Your task to perform on an android device: Clear all items from cart on bestbuy.com. Add "usb-c to usb-b" to the cart on bestbuy.com, then select checkout. Image 0: 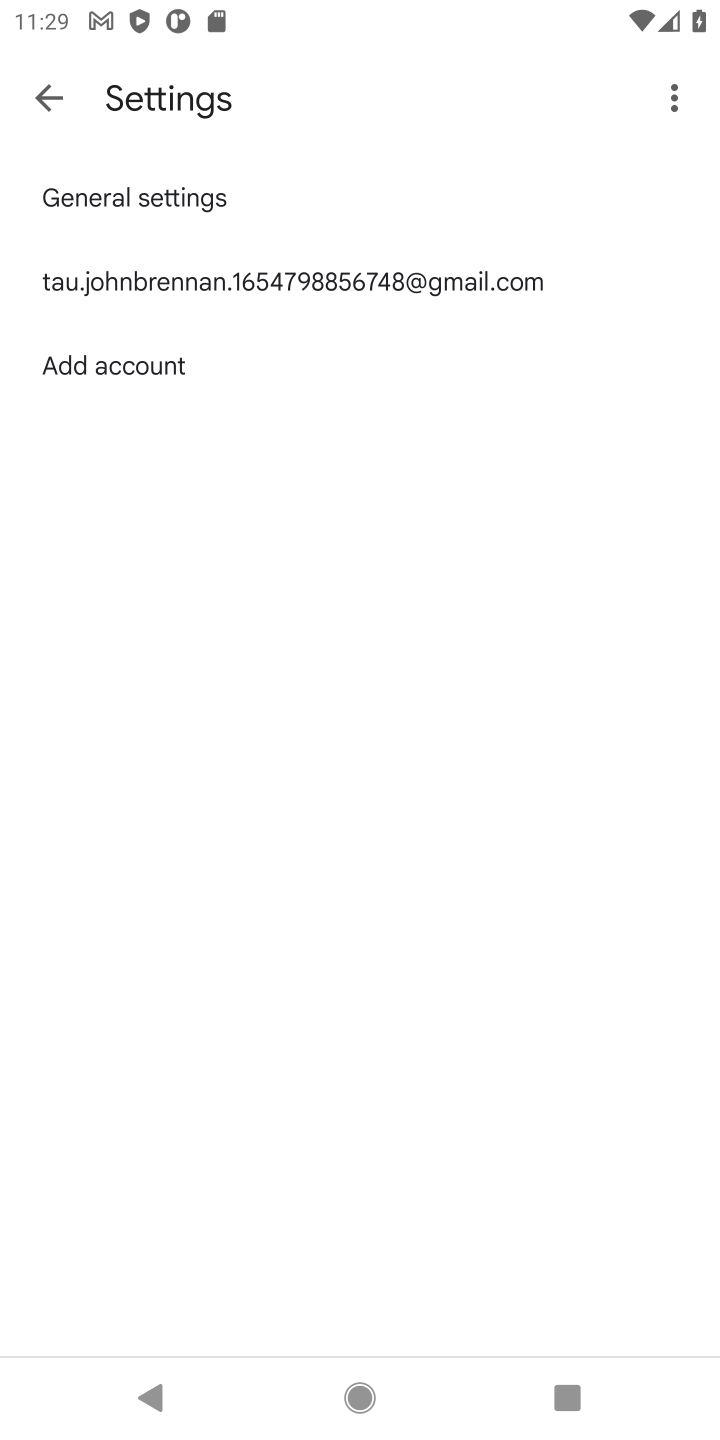
Step 0: press home button
Your task to perform on an android device: Clear all items from cart on bestbuy.com. Add "usb-c to usb-b" to the cart on bestbuy.com, then select checkout. Image 1: 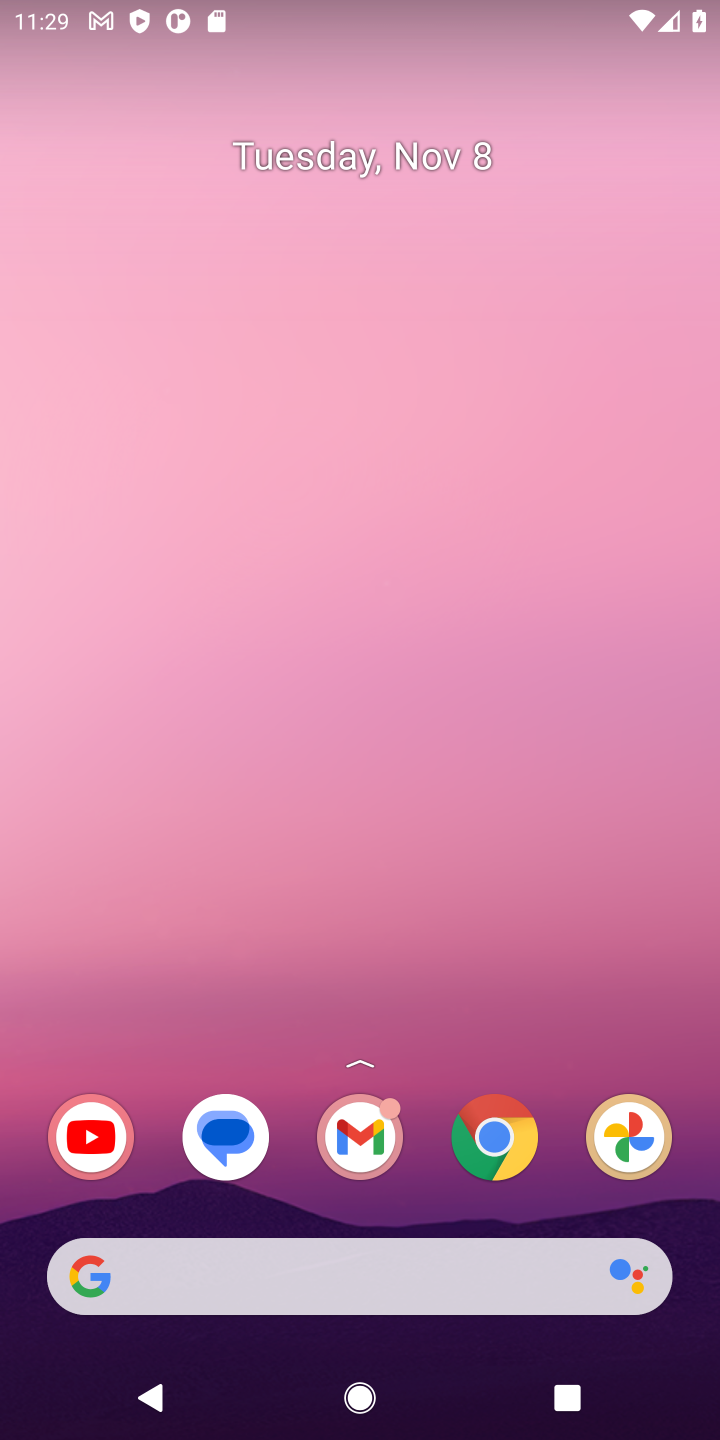
Step 1: click (498, 1140)
Your task to perform on an android device: Clear all items from cart on bestbuy.com. Add "usb-c to usb-b" to the cart on bestbuy.com, then select checkout. Image 2: 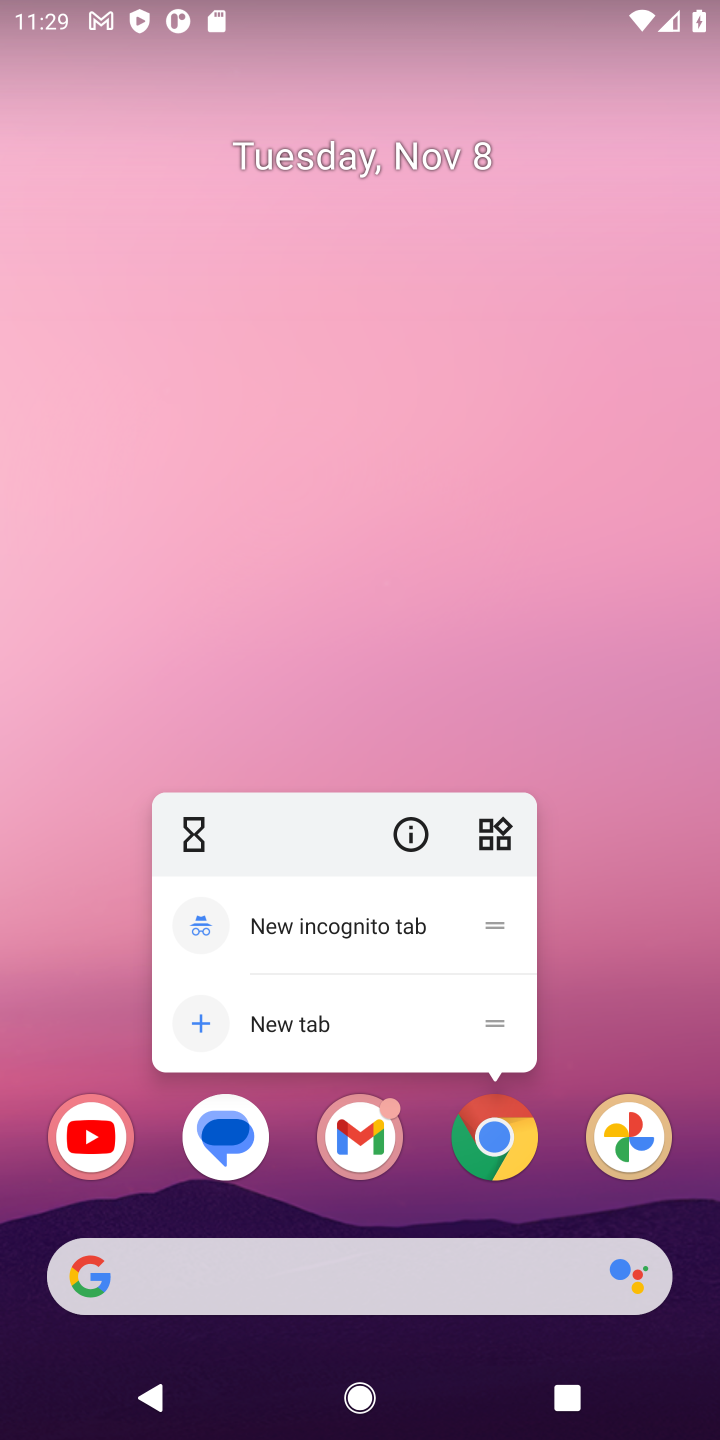
Step 2: click (498, 1140)
Your task to perform on an android device: Clear all items from cart on bestbuy.com. Add "usb-c to usb-b" to the cart on bestbuy.com, then select checkout. Image 3: 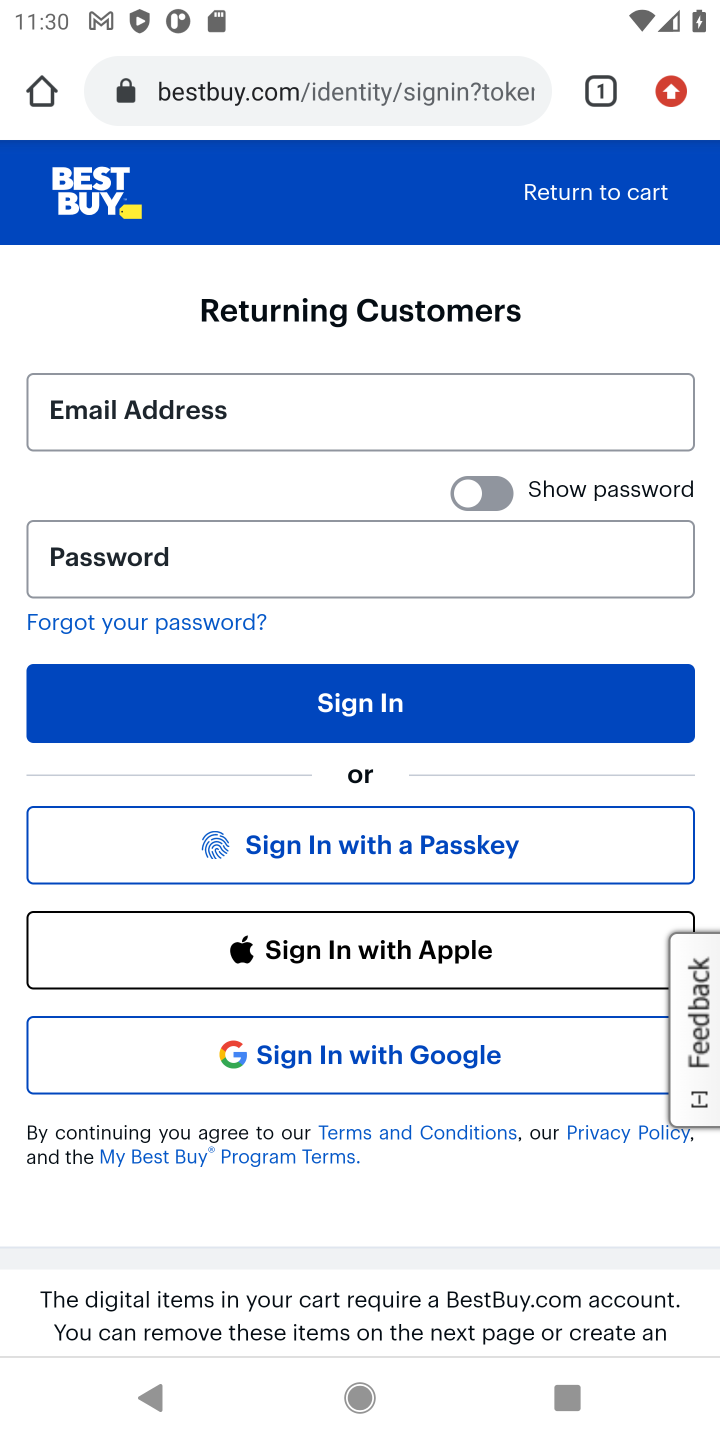
Step 3: click (446, 80)
Your task to perform on an android device: Clear all items from cart on bestbuy.com. Add "usb-c to usb-b" to the cart on bestbuy.com, then select checkout. Image 4: 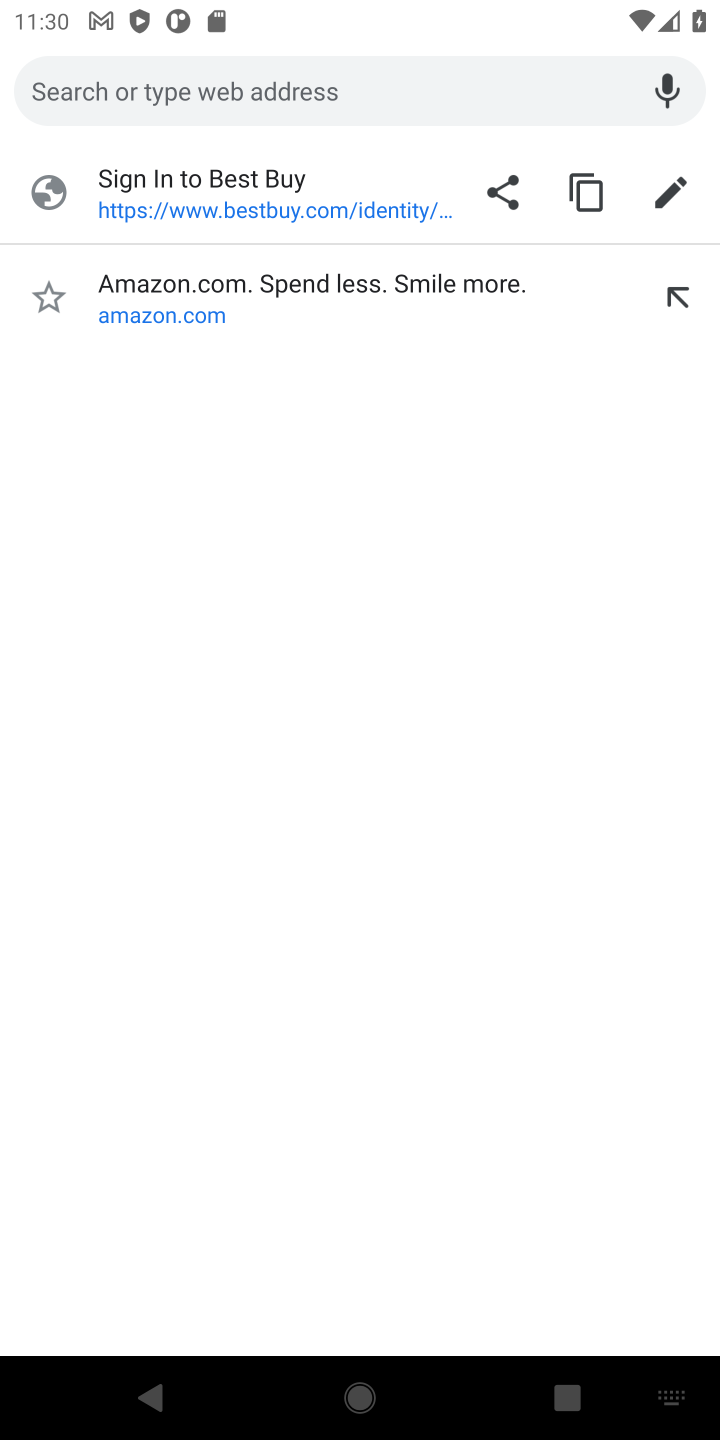
Step 4: type "bestbuy.com"
Your task to perform on an android device: Clear all items from cart on bestbuy.com. Add "usb-c to usb-b" to the cart on bestbuy.com, then select checkout. Image 5: 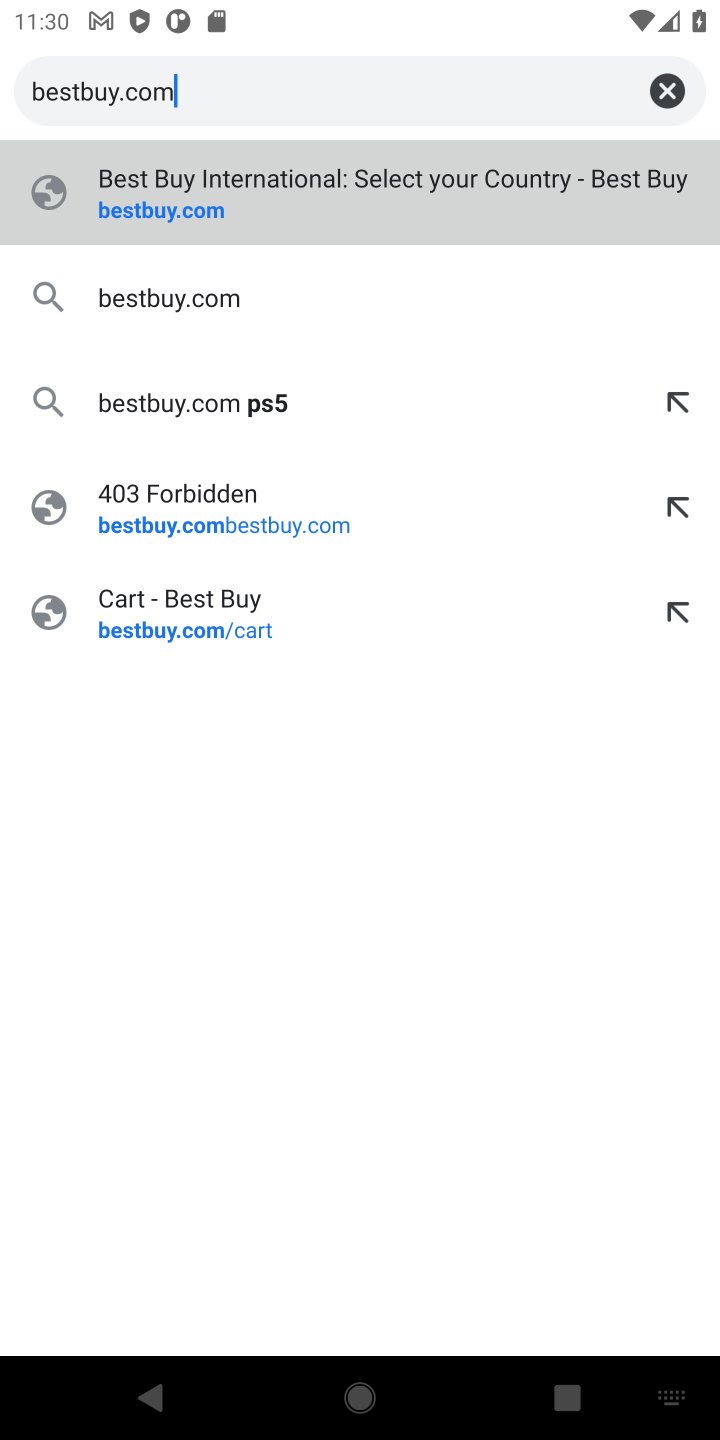
Step 5: click (213, 299)
Your task to perform on an android device: Clear all items from cart on bestbuy.com. Add "usb-c to usb-b" to the cart on bestbuy.com, then select checkout. Image 6: 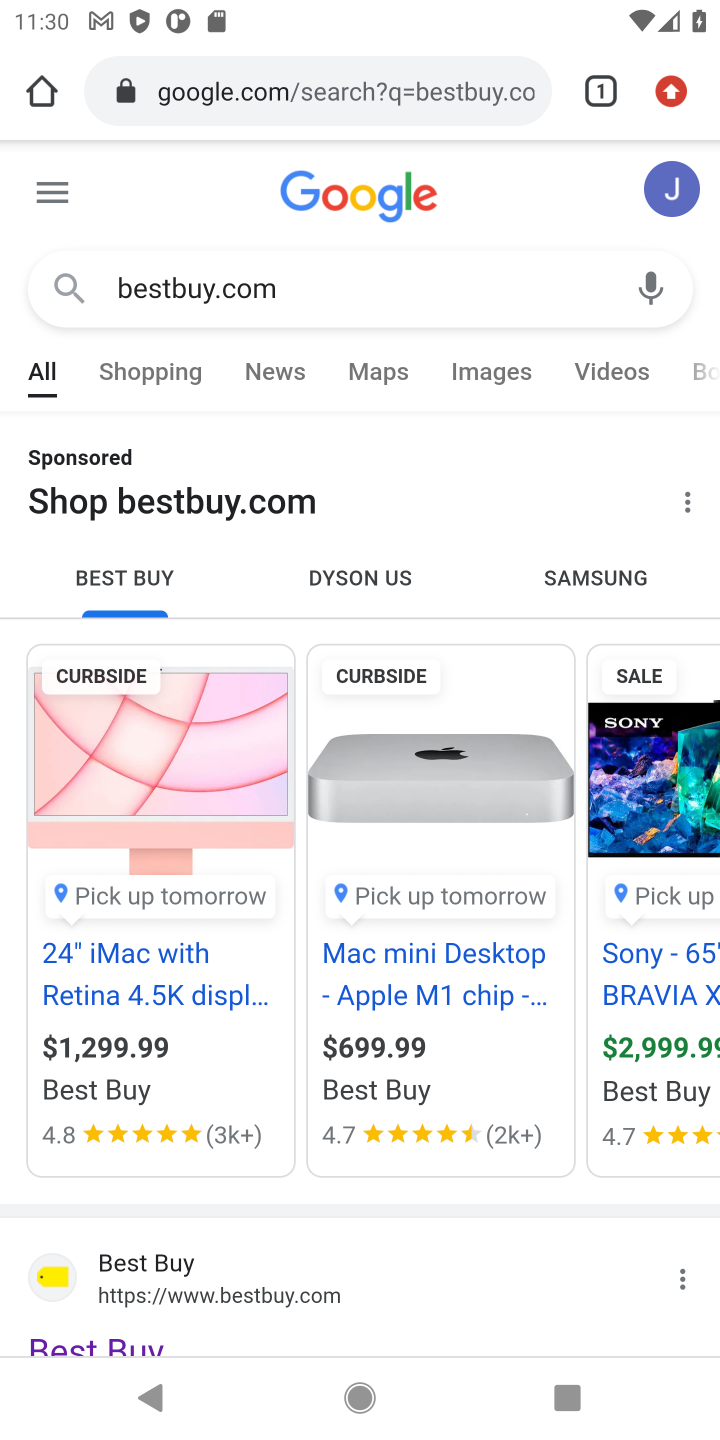
Step 6: click (266, 1290)
Your task to perform on an android device: Clear all items from cart on bestbuy.com. Add "usb-c to usb-b" to the cart on bestbuy.com, then select checkout. Image 7: 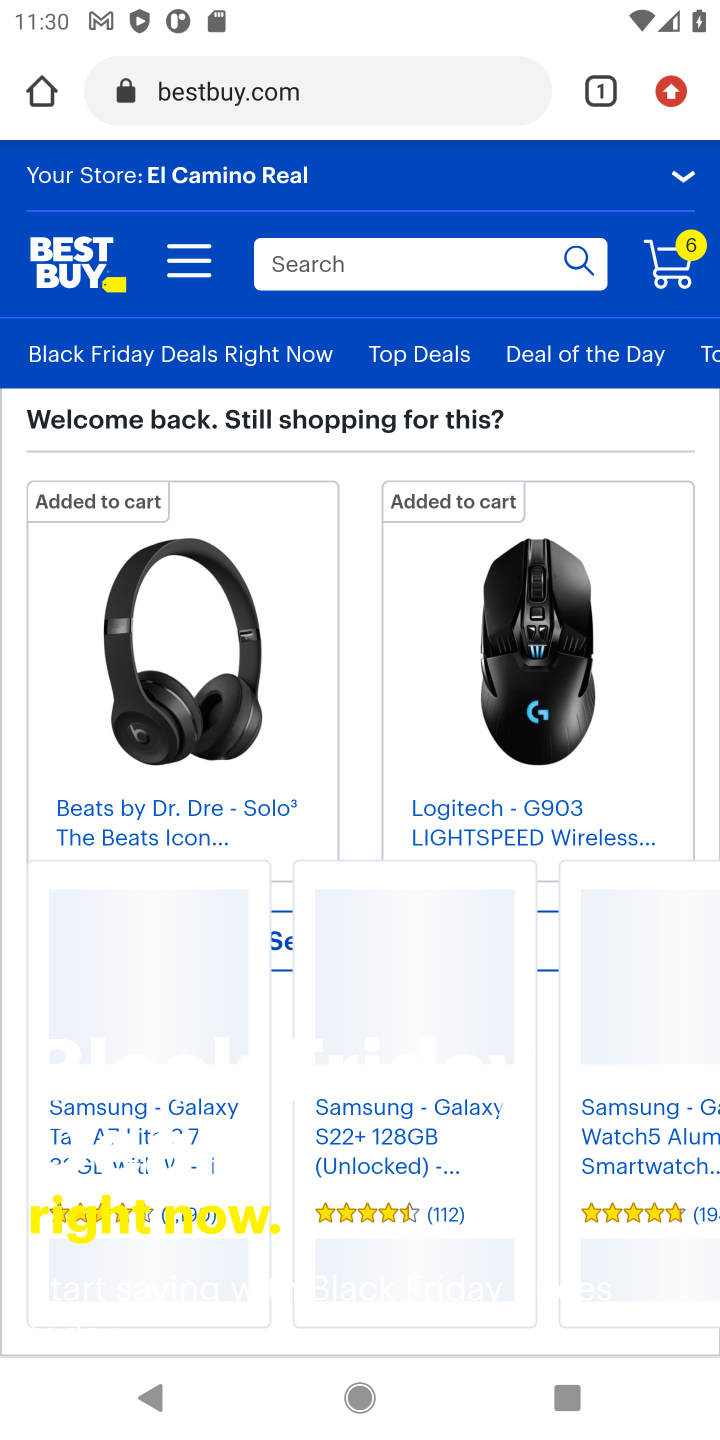
Step 7: click (688, 256)
Your task to perform on an android device: Clear all items from cart on bestbuy.com. Add "usb-c to usb-b" to the cart on bestbuy.com, then select checkout. Image 8: 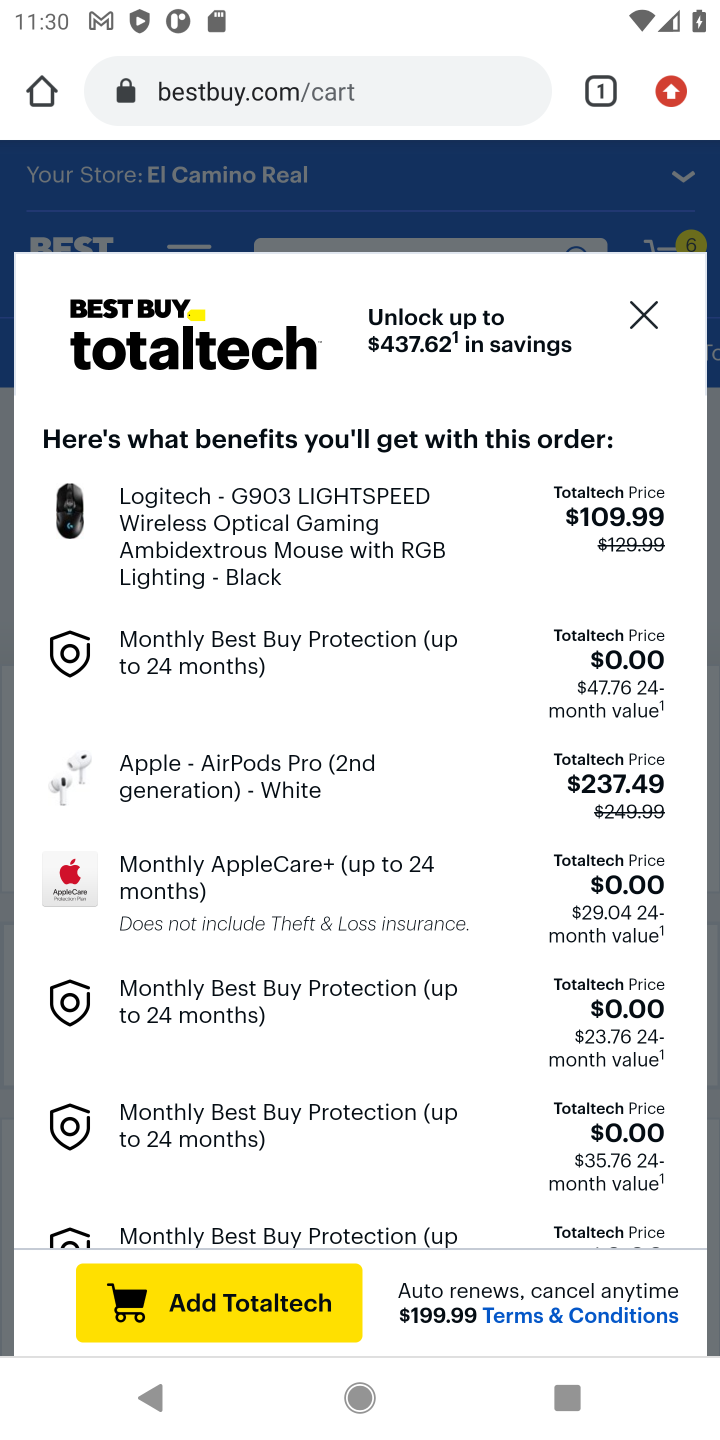
Step 8: click (646, 306)
Your task to perform on an android device: Clear all items from cart on bestbuy.com. Add "usb-c to usb-b" to the cart on bestbuy.com, then select checkout. Image 9: 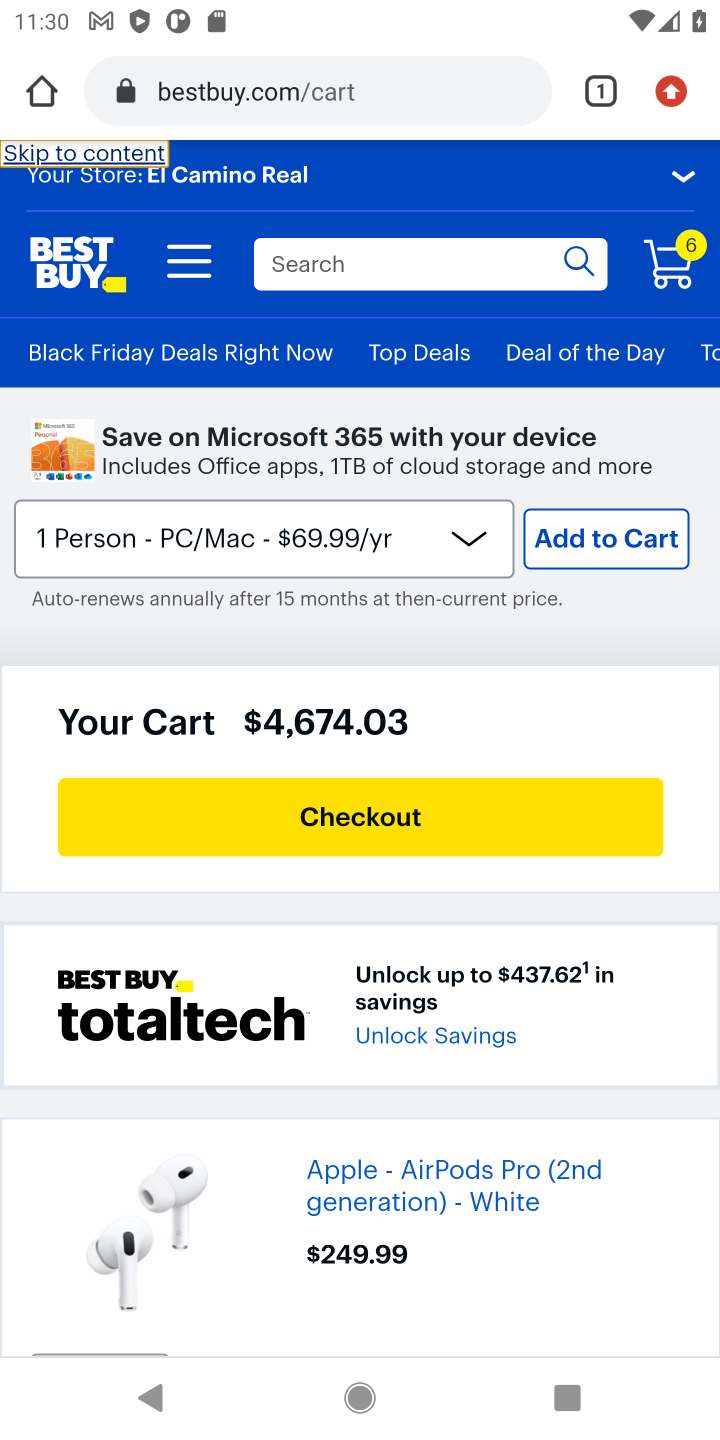
Step 9: drag from (473, 1257) to (673, 685)
Your task to perform on an android device: Clear all items from cart on bestbuy.com. Add "usb-c to usb-b" to the cart on bestbuy.com, then select checkout. Image 10: 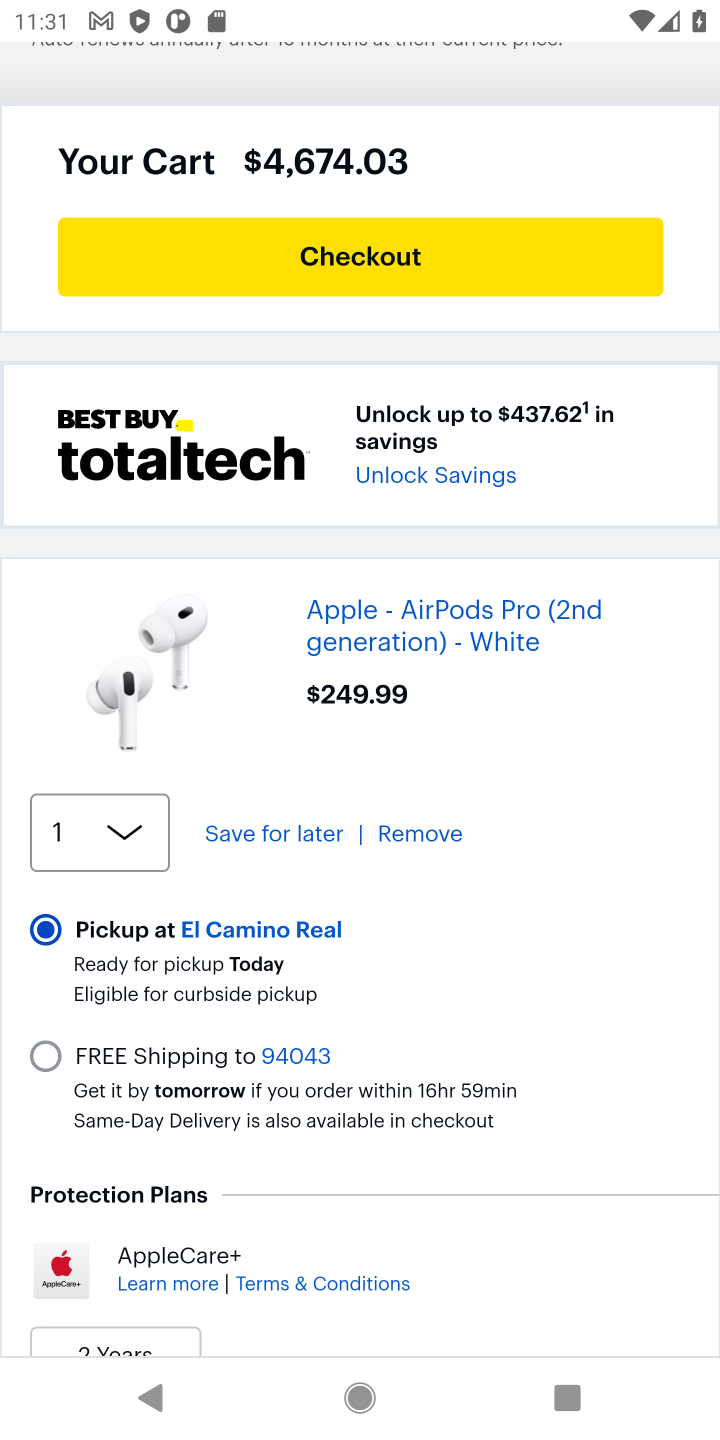
Step 10: click (414, 836)
Your task to perform on an android device: Clear all items from cart on bestbuy.com. Add "usb-c to usb-b" to the cart on bestbuy.com, then select checkout. Image 11: 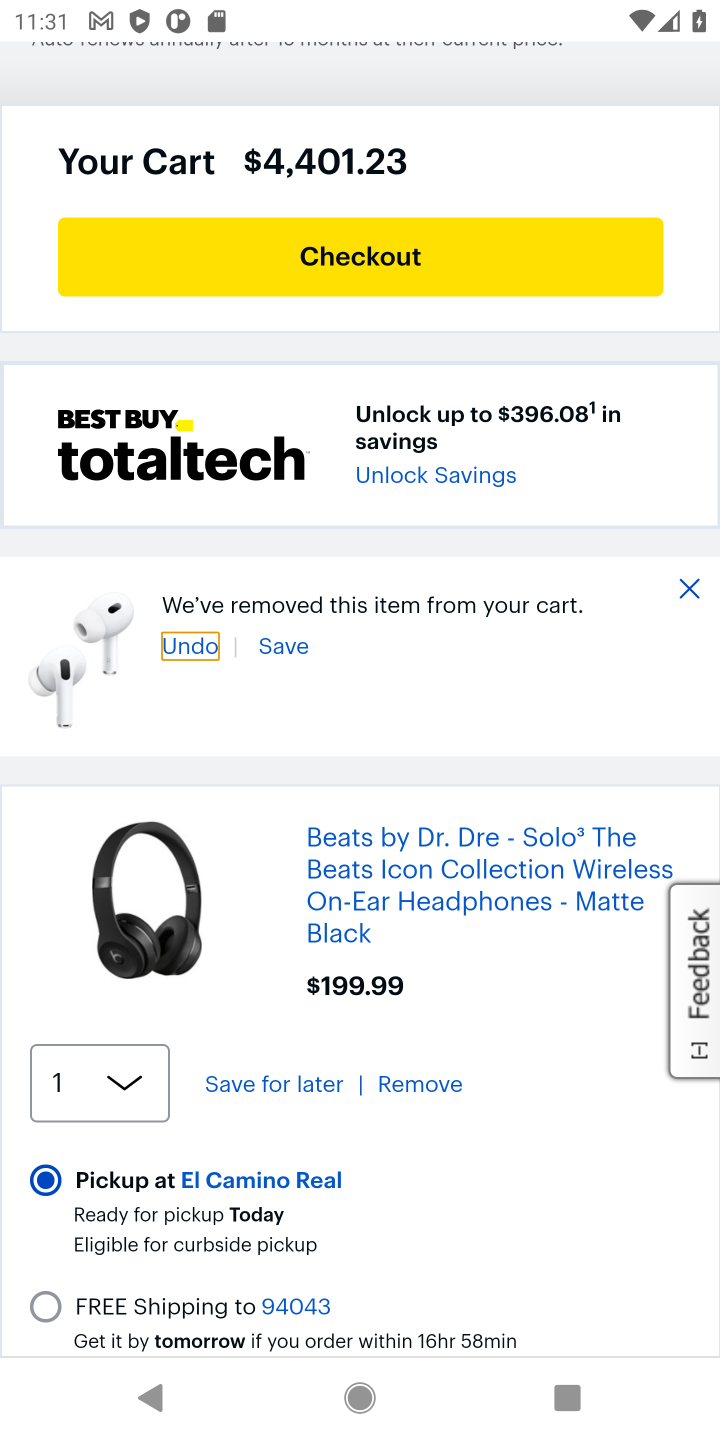
Step 11: click (404, 1087)
Your task to perform on an android device: Clear all items from cart on bestbuy.com. Add "usb-c to usb-b" to the cart on bestbuy.com, then select checkout. Image 12: 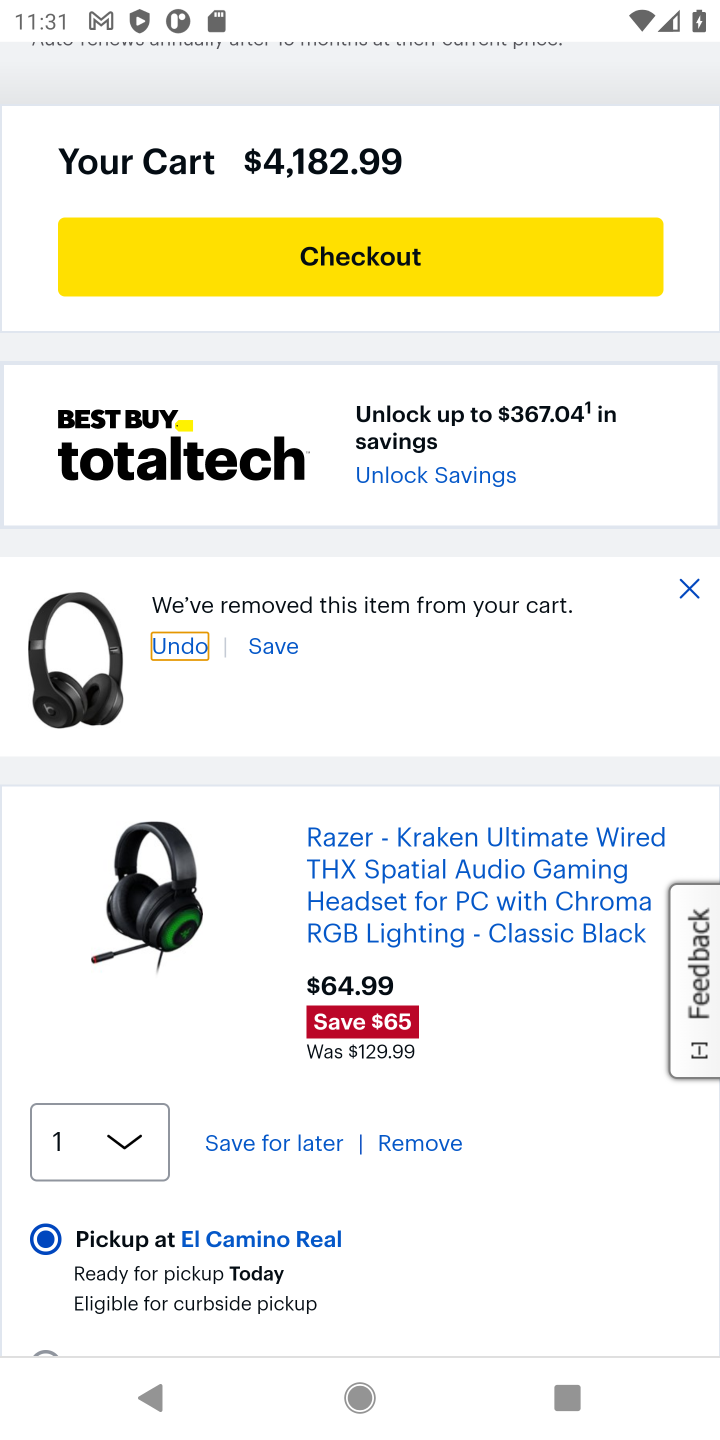
Step 12: click (420, 1140)
Your task to perform on an android device: Clear all items from cart on bestbuy.com. Add "usb-c to usb-b" to the cart on bestbuy.com, then select checkout. Image 13: 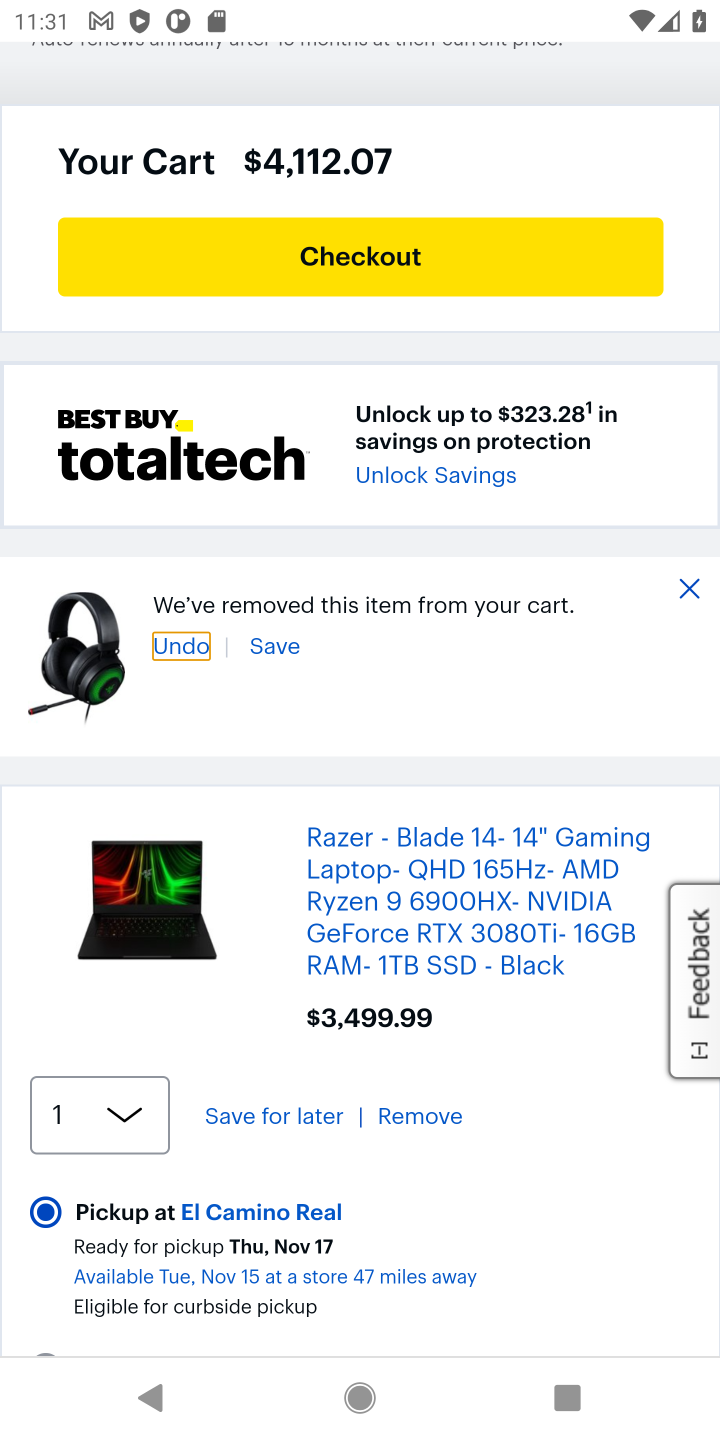
Step 13: click (430, 1112)
Your task to perform on an android device: Clear all items from cart on bestbuy.com. Add "usb-c to usb-b" to the cart on bestbuy.com, then select checkout. Image 14: 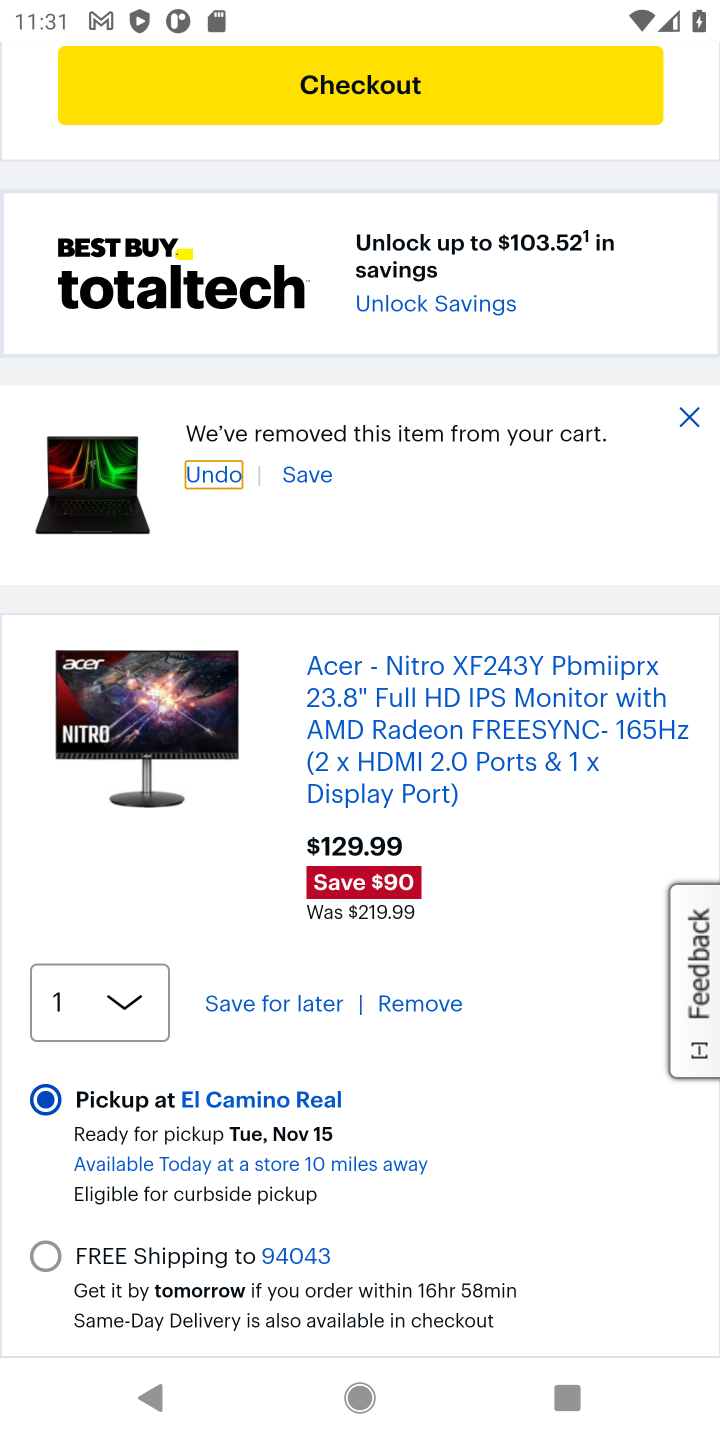
Step 14: drag from (493, 1206) to (517, 751)
Your task to perform on an android device: Clear all items from cart on bestbuy.com. Add "usb-c to usb-b" to the cart on bestbuy.com, then select checkout. Image 15: 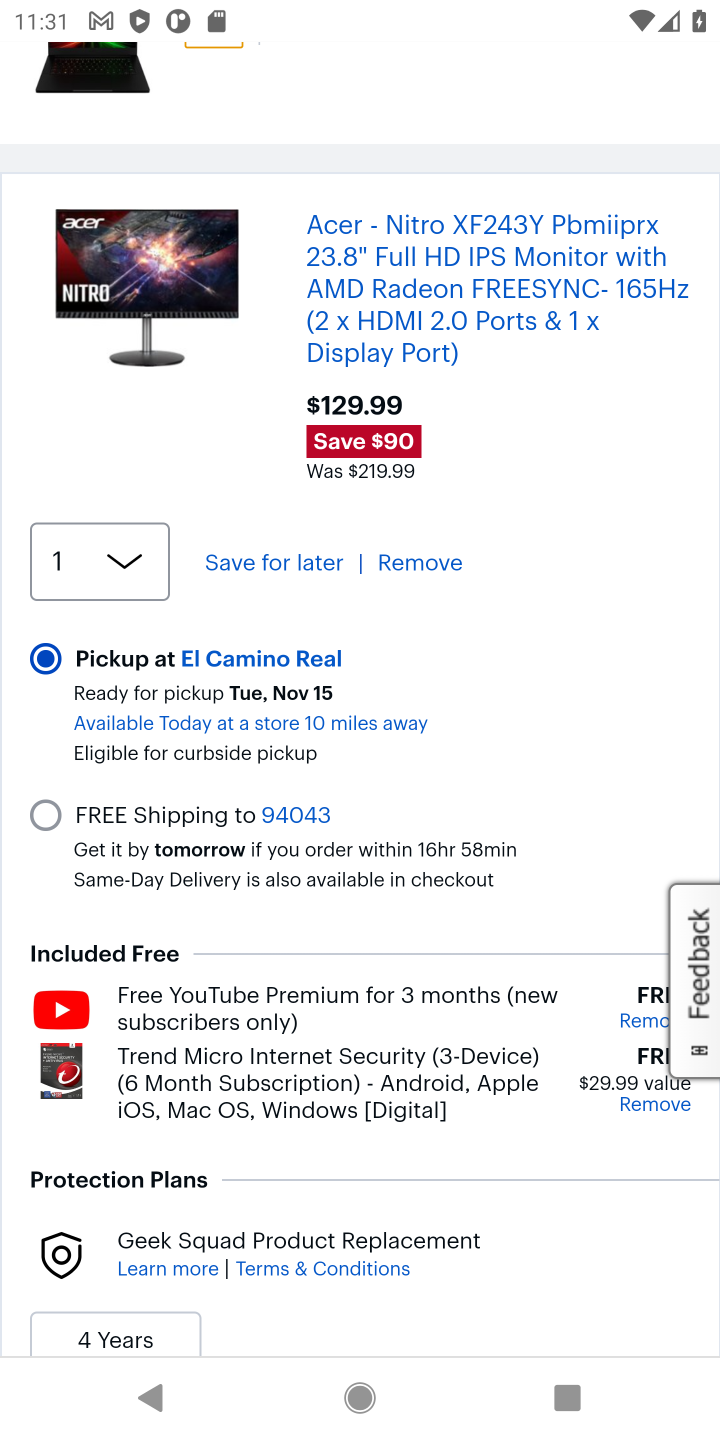
Step 15: click (430, 560)
Your task to perform on an android device: Clear all items from cart on bestbuy.com. Add "usb-c to usb-b" to the cart on bestbuy.com, then select checkout. Image 16: 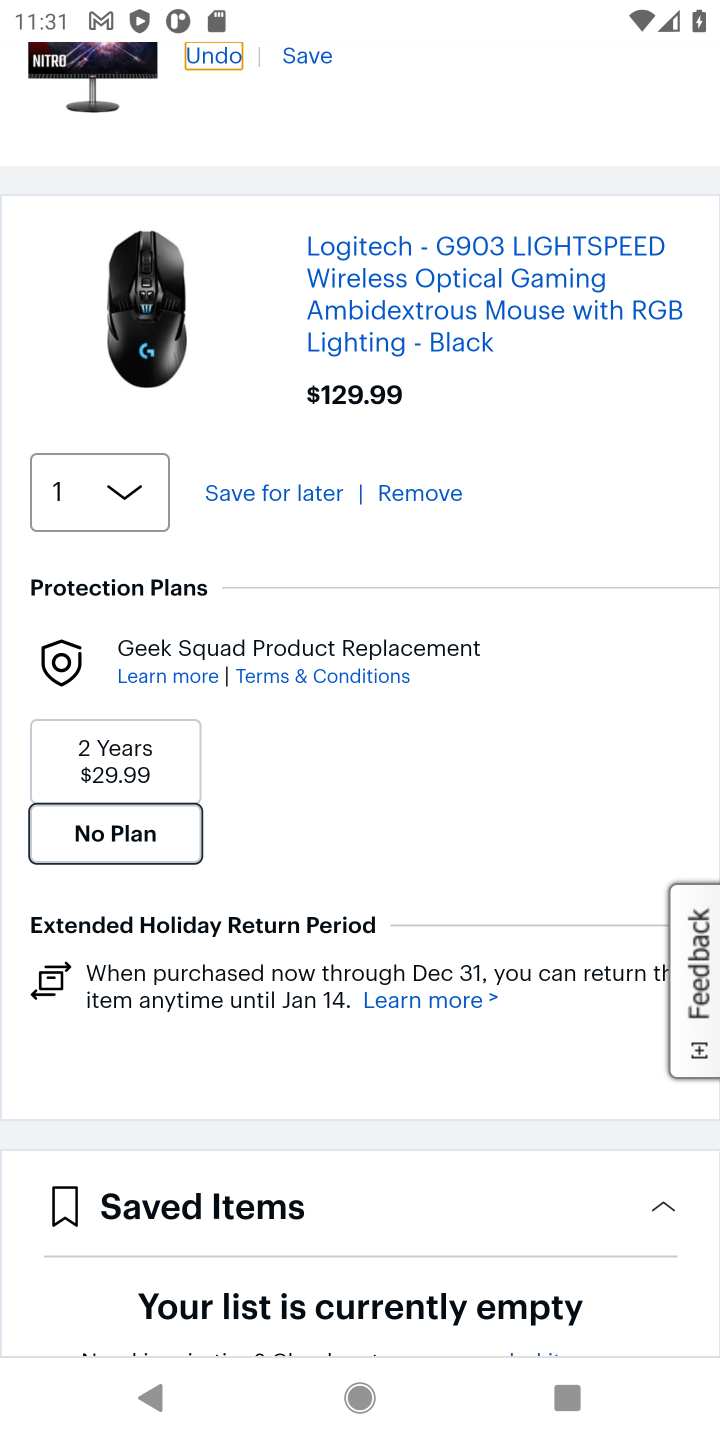
Step 16: click (418, 496)
Your task to perform on an android device: Clear all items from cart on bestbuy.com. Add "usb-c to usb-b" to the cart on bestbuy.com, then select checkout. Image 17: 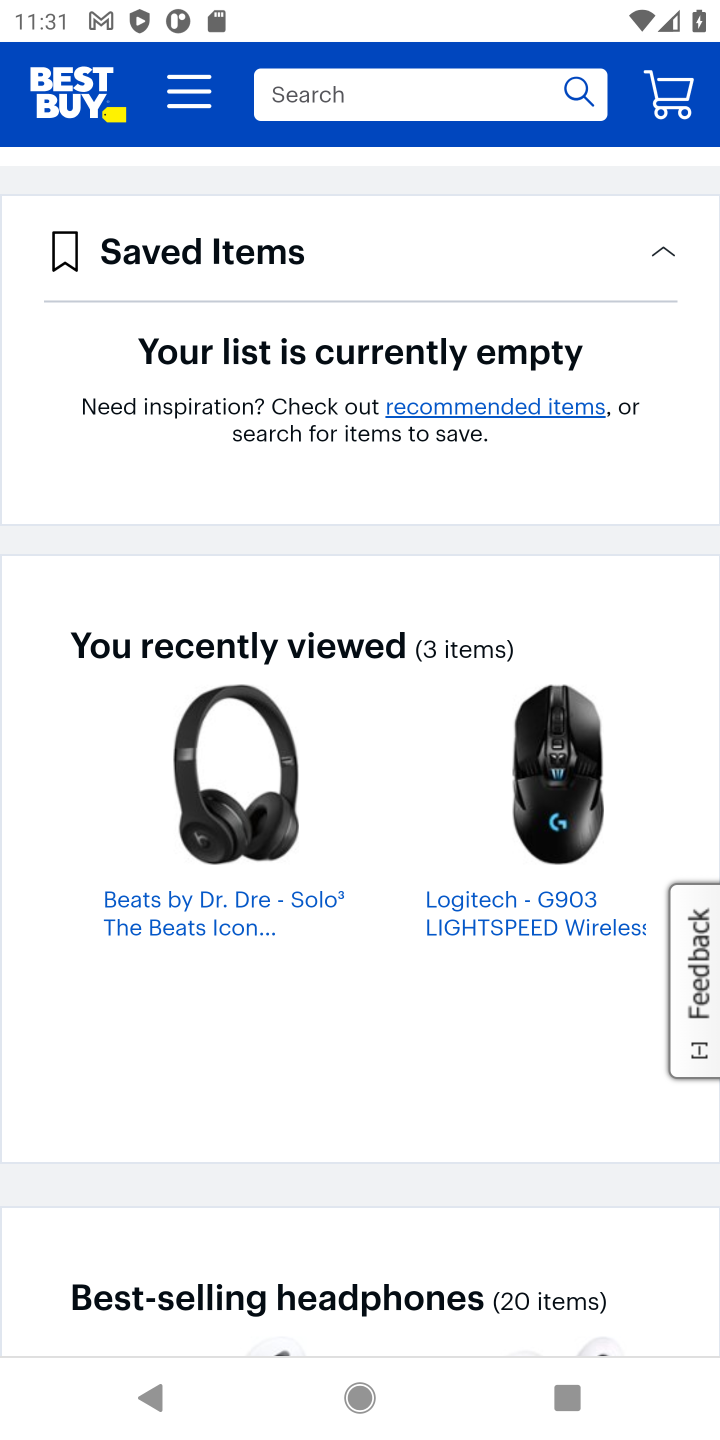
Step 17: click (495, 106)
Your task to perform on an android device: Clear all items from cart on bestbuy.com. Add "usb-c to usb-b" to the cart on bestbuy.com, then select checkout. Image 18: 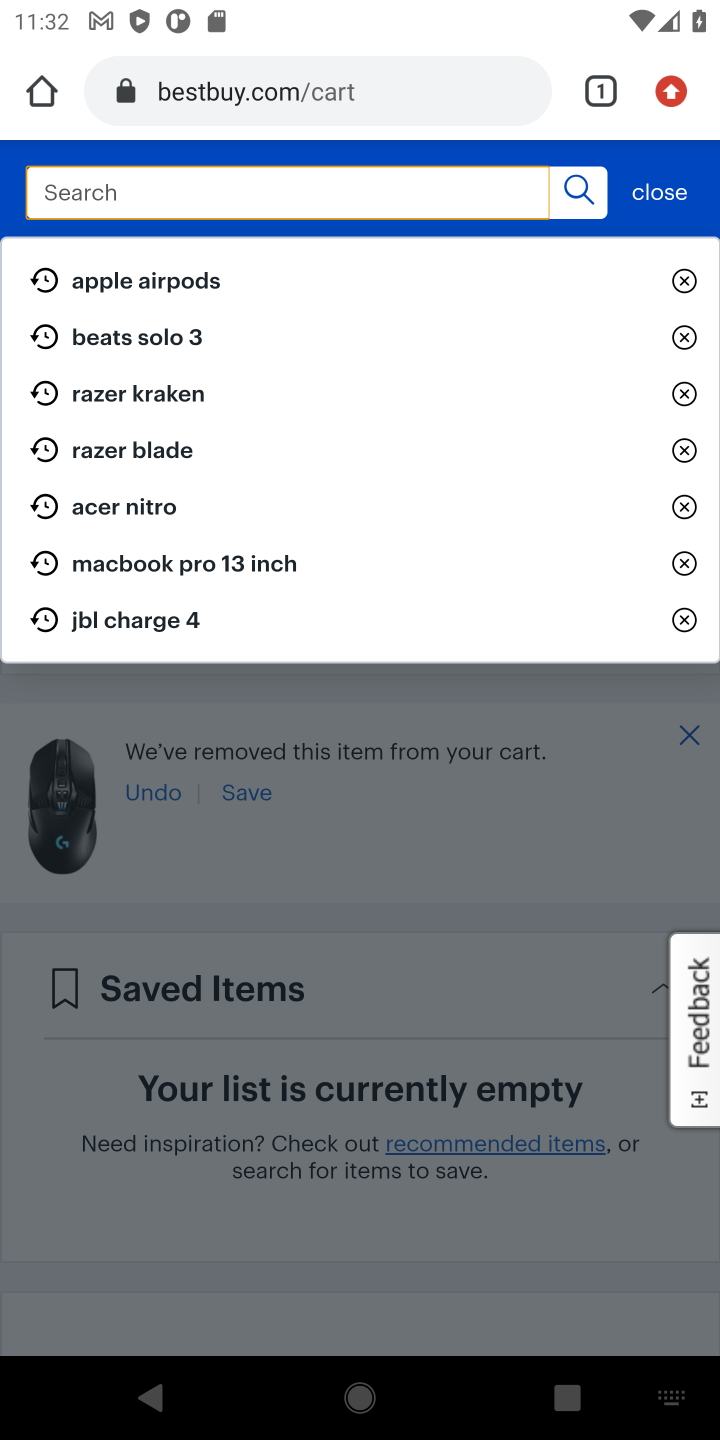
Step 18: type "usb-c to usb-b"
Your task to perform on an android device: Clear all items from cart on bestbuy.com. Add "usb-c to usb-b" to the cart on bestbuy.com, then select checkout. Image 19: 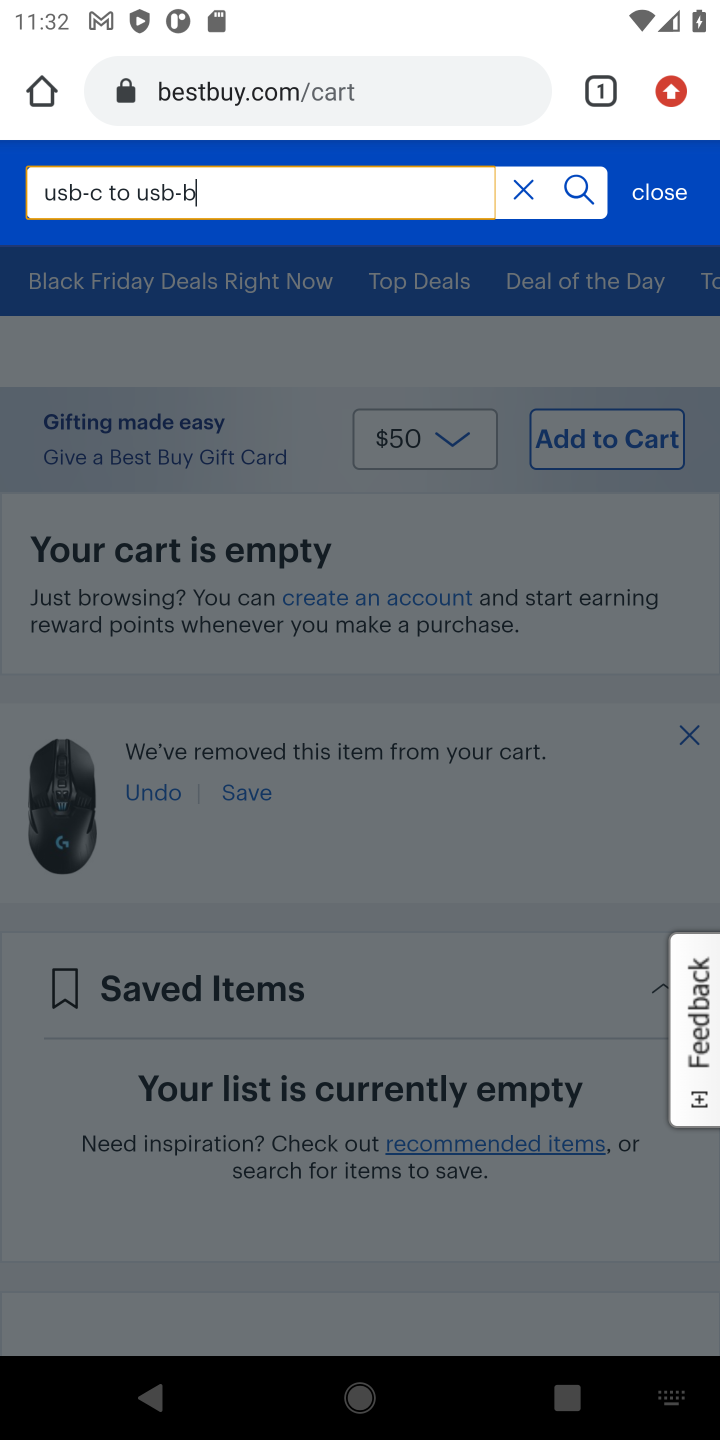
Step 19: click (578, 190)
Your task to perform on an android device: Clear all items from cart on bestbuy.com. Add "usb-c to usb-b" to the cart on bestbuy.com, then select checkout. Image 20: 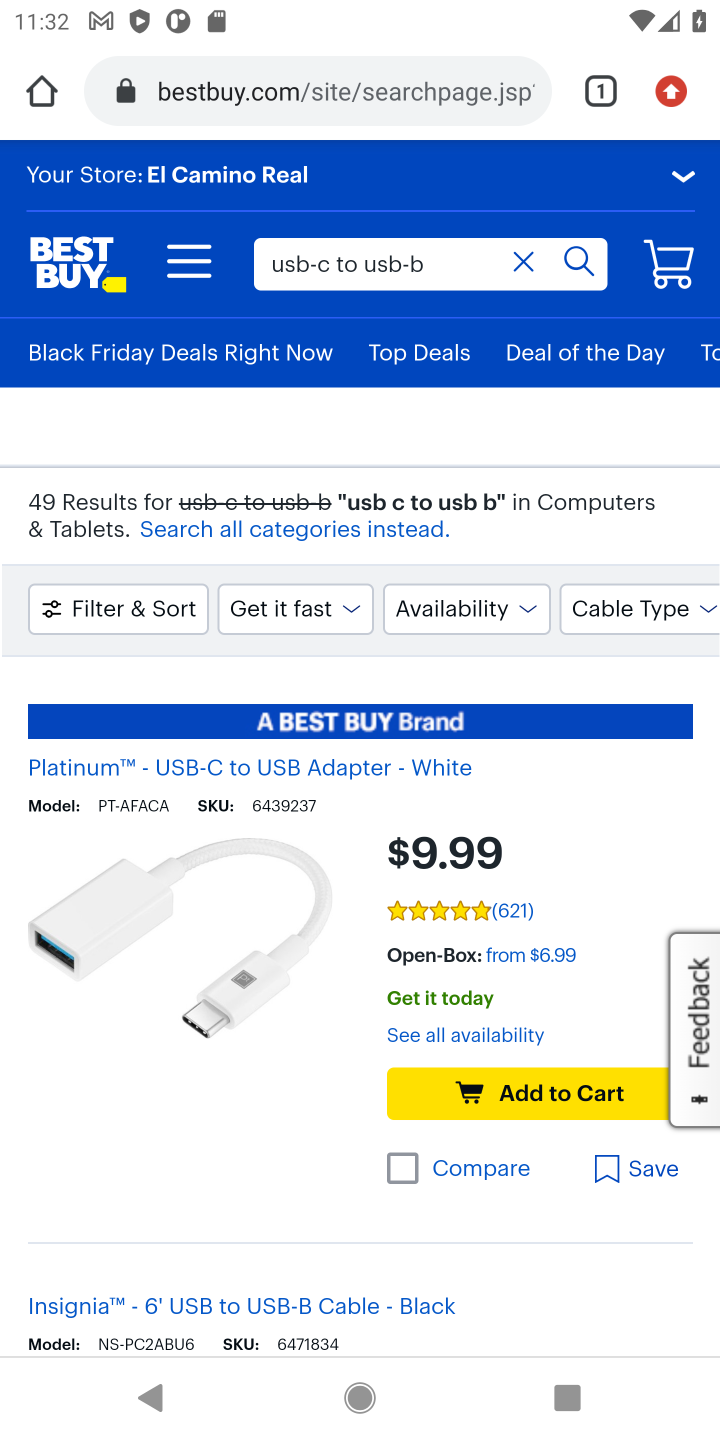
Step 20: click (527, 1088)
Your task to perform on an android device: Clear all items from cart on bestbuy.com. Add "usb-c to usb-b" to the cart on bestbuy.com, then select checkout. Image 21: 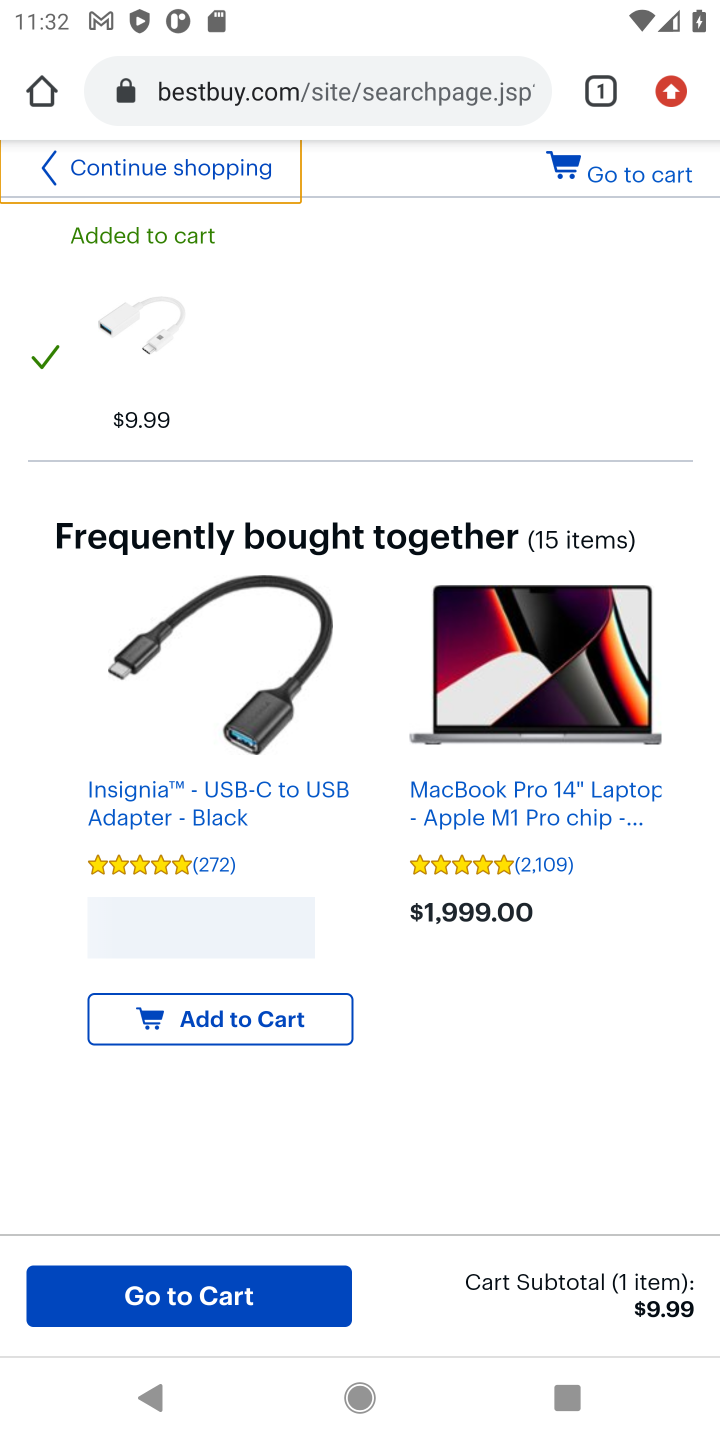
Step 21: click (166, 1305)
Your task to perform on an android device: Clear all items from cart on bestbuy.com. Add "usb-c to usb-b" to the cart on bestbuy.com, then select checkout. Image 22: 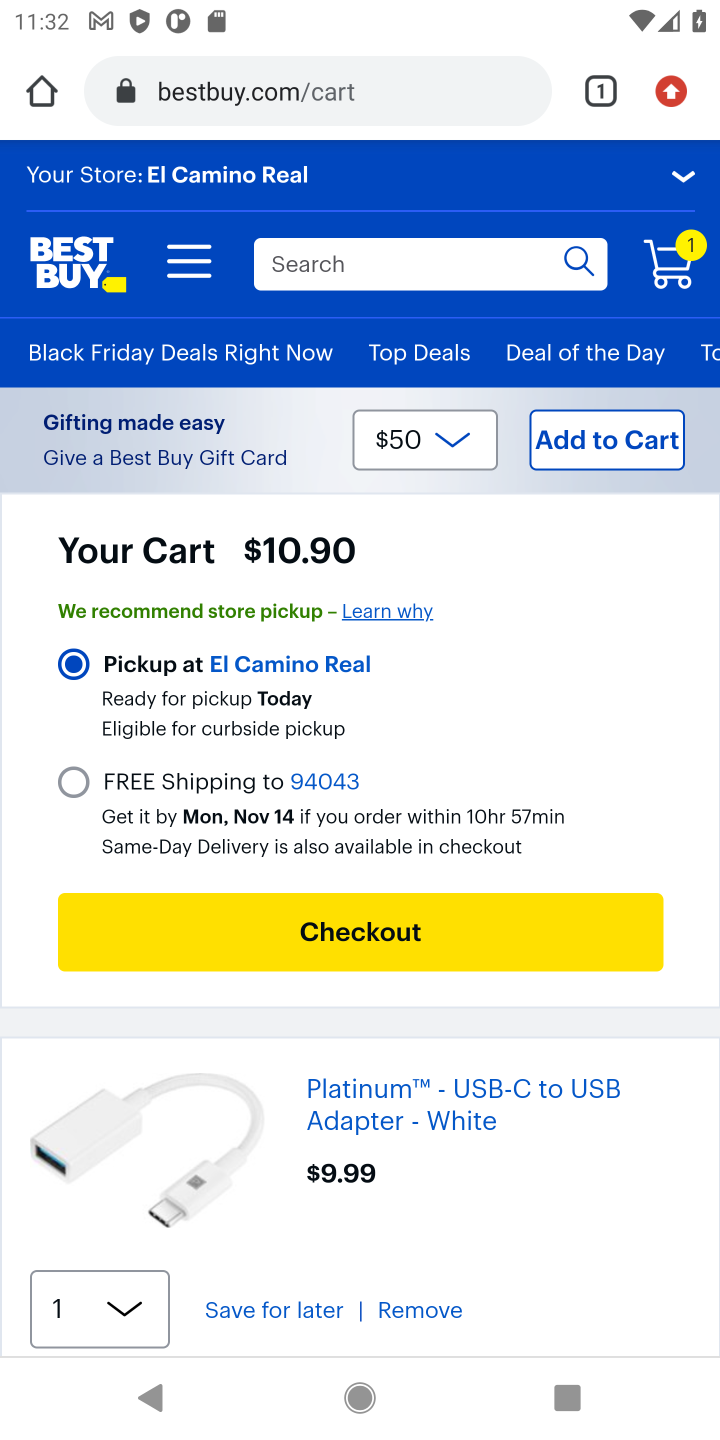
Step 22: click (400, 925)
Your task to perform on an android device: Clear all items from cart on bestbuy.com. Add "usb-c to usb-b" to the cart on bestbuy.com, then select checkout. Image 23: 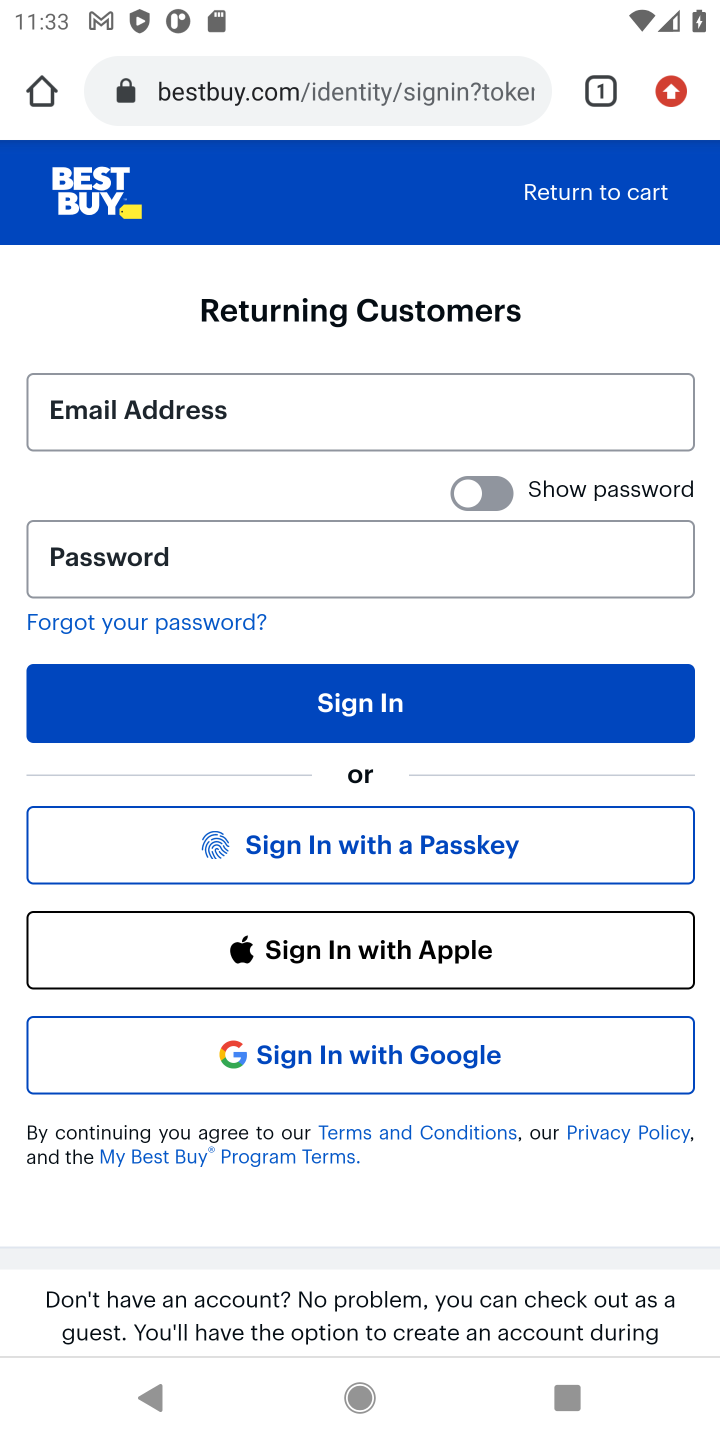
Step 23: task complete